Your task to perform on an android device: turn on the 24-hour format for clock Image 0: 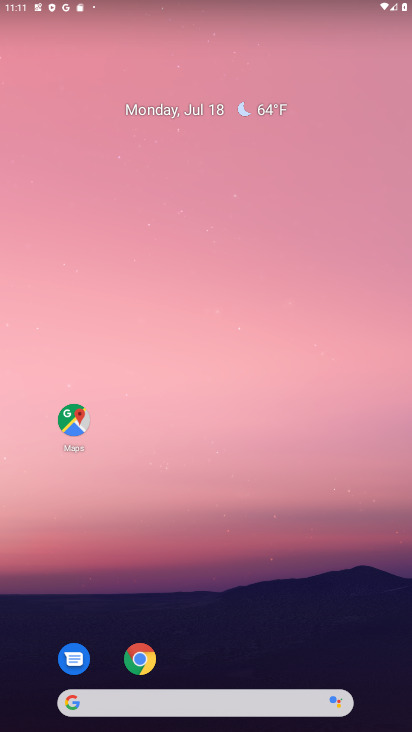
Step 0: press home button
Your task to perform on an android device: turn on the 24-hour format for clock Image 1: 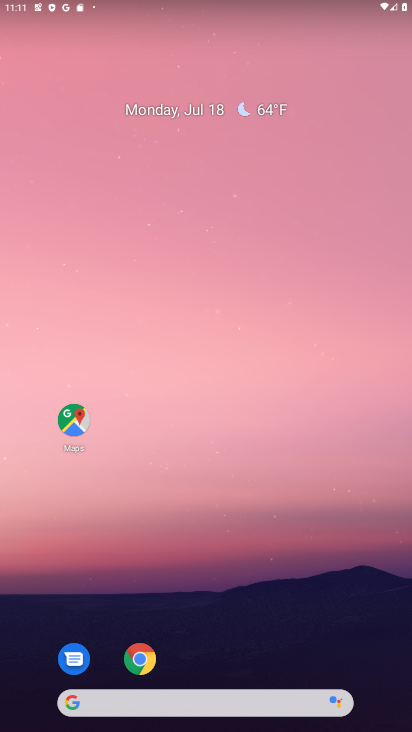
Step 1: drag from (246, 640) to (242, 468)
Your task to perform on an android device: turn on the 24-hour format for clock Image 2: 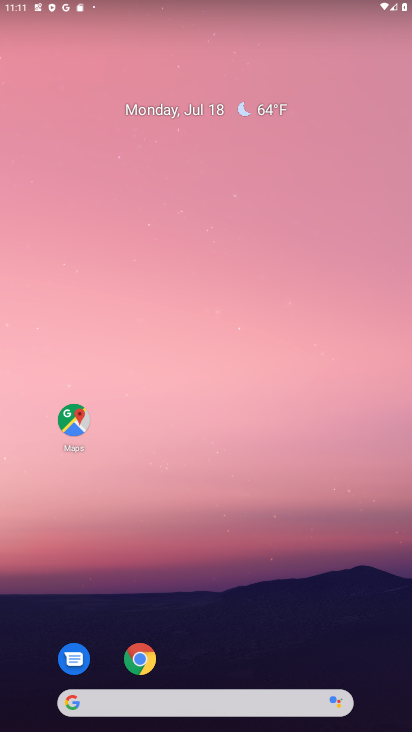
Step 2: drag from (301, 647) to (174, 0)
Your task to perform on an android device: turn on the 24-hour format for clock Image 3: 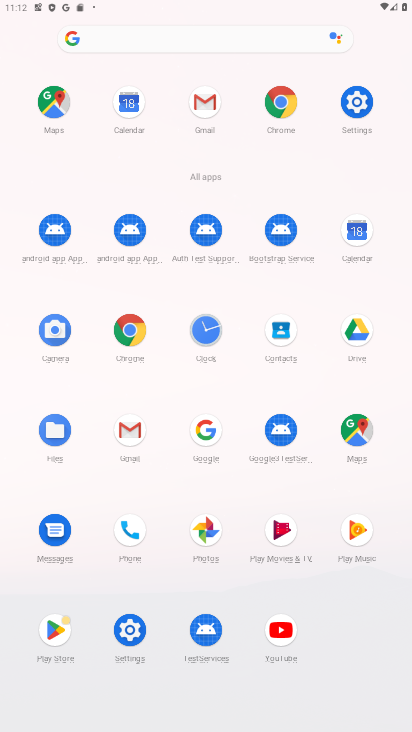
Step 3: click (211, 342)
Your task to perform on an android device: turn on the 24-hour format for clock Image 4: 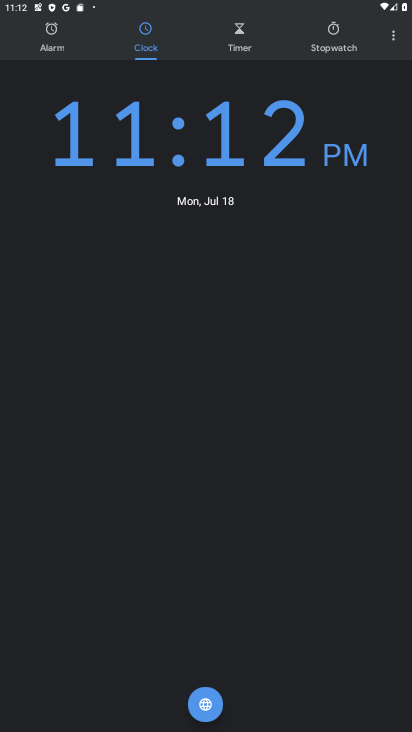
Step 4: click (403, 35)
Your task to perform on an android device: turn on the 24-hour format for clock Image 5: 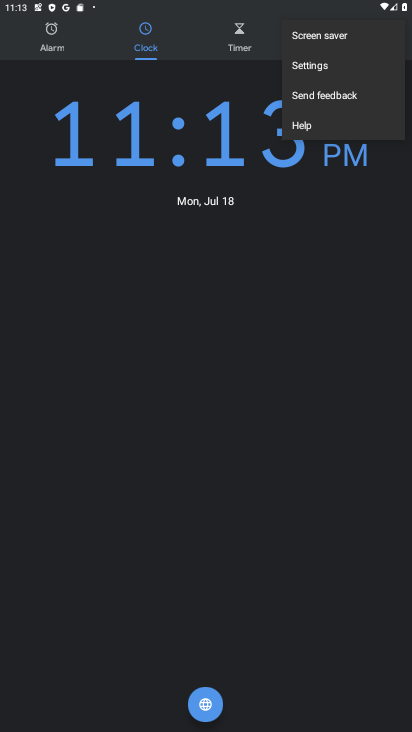
Step 5: click (326, 69)
Your task to perform on an android device: turn on the 24-hour format for clock Image 6: 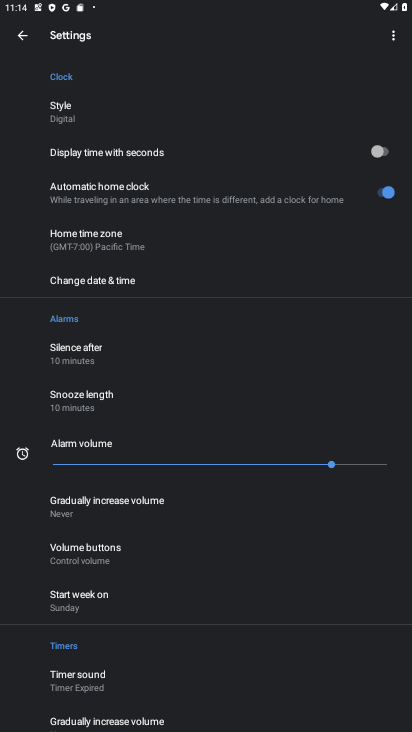
Step 6: click (72, 280)
Your task to perform on an android device: turn on the 24-hour format for clock Image 7: 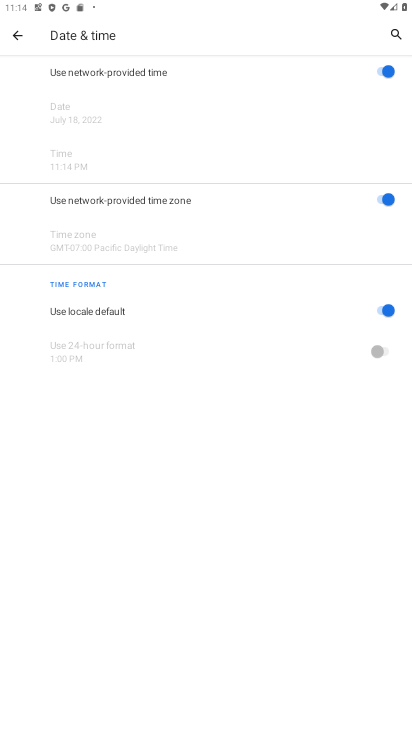
Step 7: click (76, 303)
Your task to perform on an android device: turn on the 24-hour format for clock Image 8: 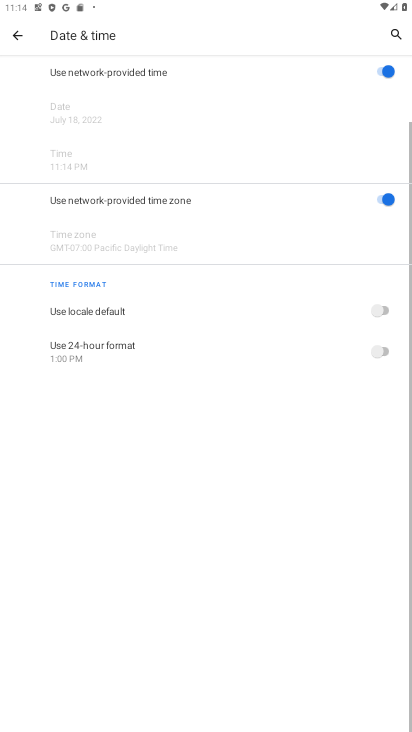
Step 8: click (80, 371)
Your task to perform on an android device: turn on the 24-hour format for clock Image 9: 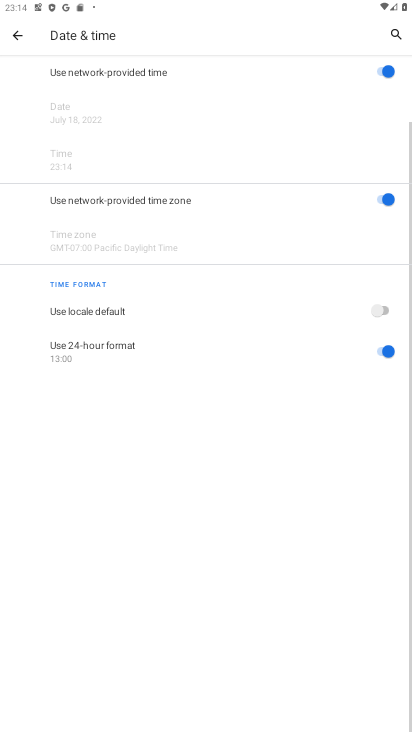
Step 9: task complete